Your task to perform on an android device: Go to Amazon Image 0: 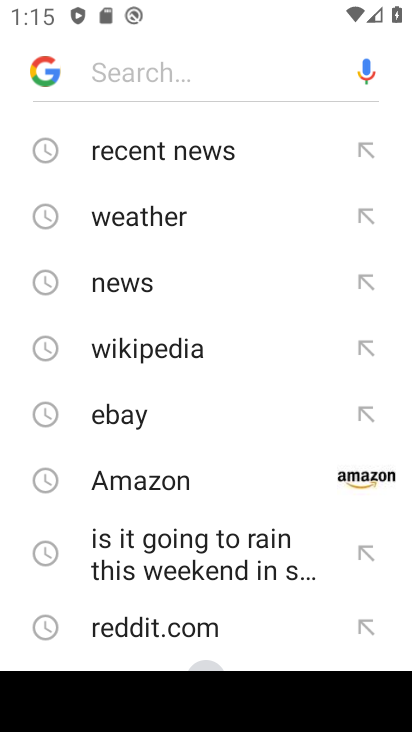
Step 0: press home button
Your task to perform on an android device: Go to Amazon Image 1: 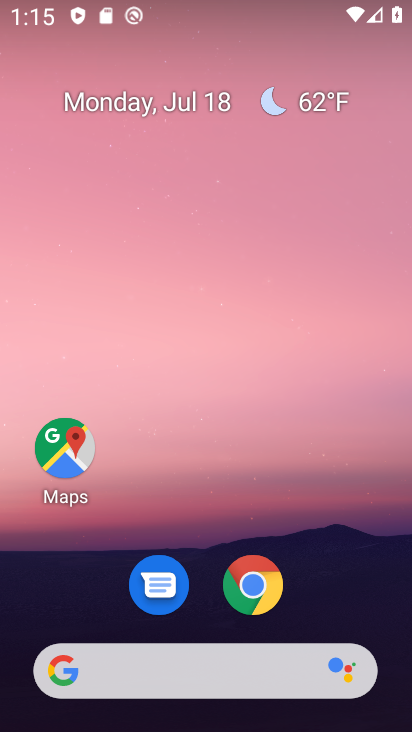
Step 1: drag from (225, 652) to (210, 112)
Your task to perform on an android device: Go to Amazon Image 2: 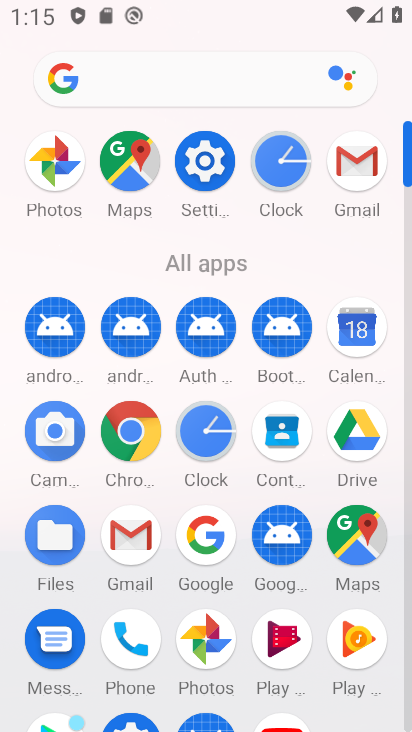
Step 2: click (127, 431)
Your task to perform on an android device: Go to Amazon Image 3: 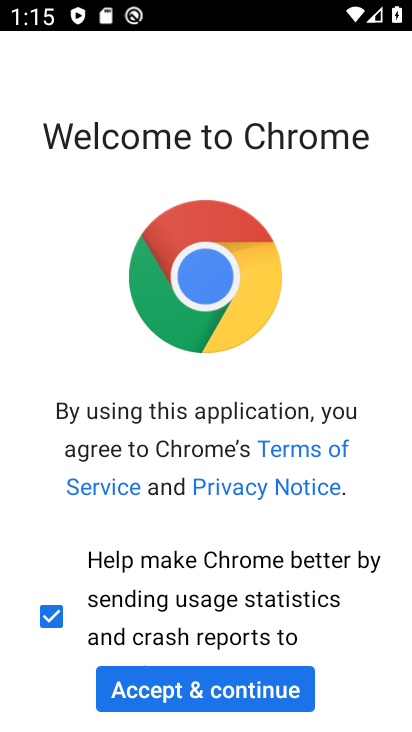
Step 3: click (224, 684)
Your task to perform on an android device: Go to Amazon Image 4: 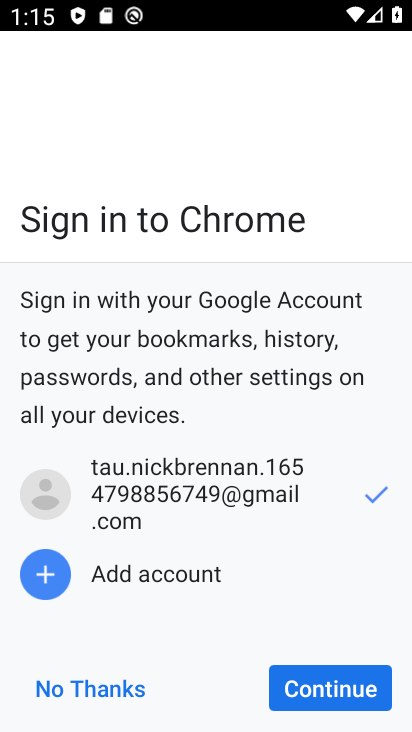
Step 4: click (284, 687)
Your task to perform on an android device: Go to Amazon Image 5: 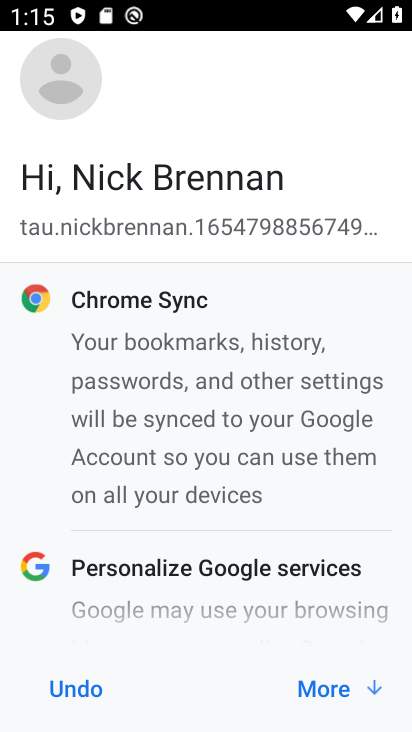
Step 5: click (284, 687)
Your task to perform on an android device: Go to Amazon Image 6: 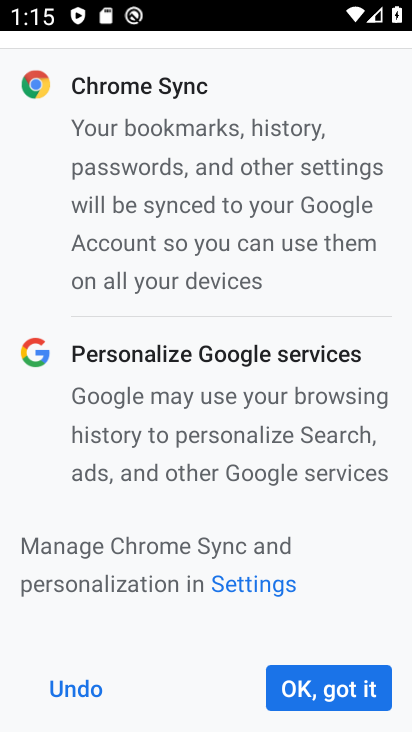
Step 6: click (291, 690)
Your task to perform on an android device: Go to Amazon Image 7: 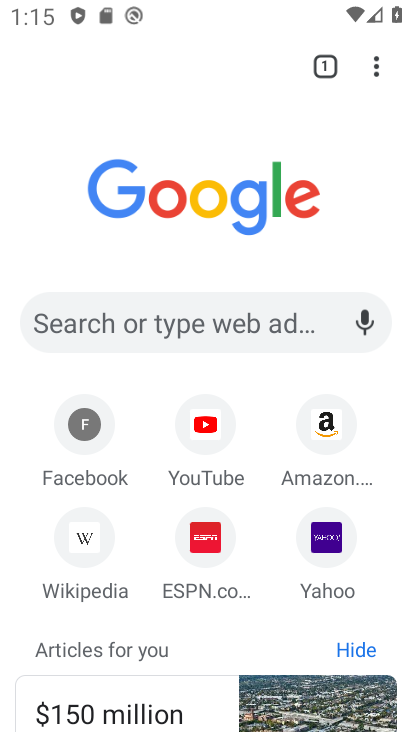
Step 7: click (318, 424)
Your task to perform on an android device: Go to Amazon Image 8: 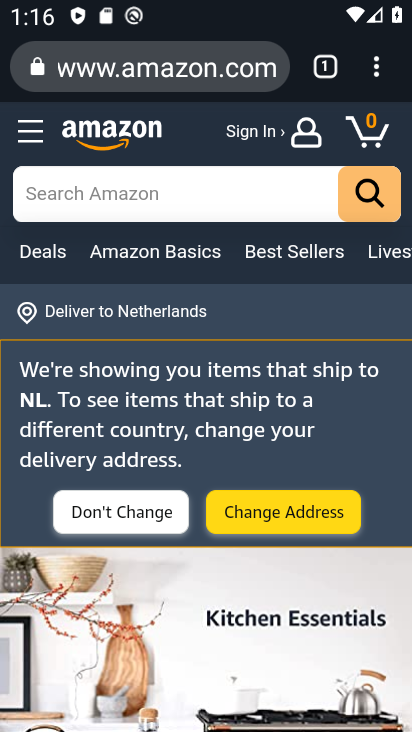
Step 8: task complete